Your task to perform on an android device: Is it going to rain today? Image 0: 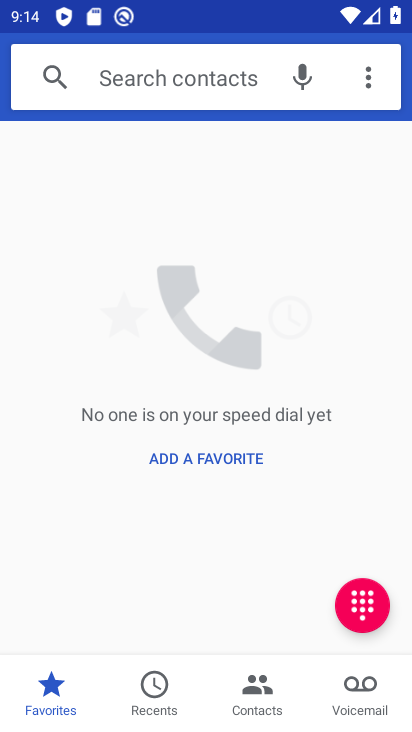
Step 0: press home button
Your task to perform on an android device: Is it going to rain today? Image 1: 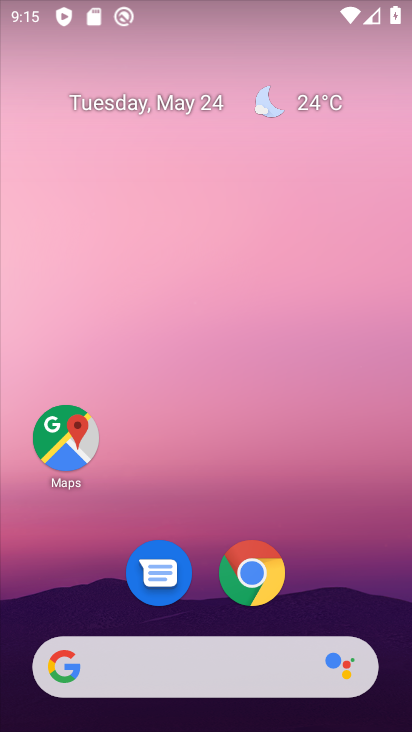
Step 1: click (319, 93)
Your task to perform on an android device: Is it going to rain today? Image 2: 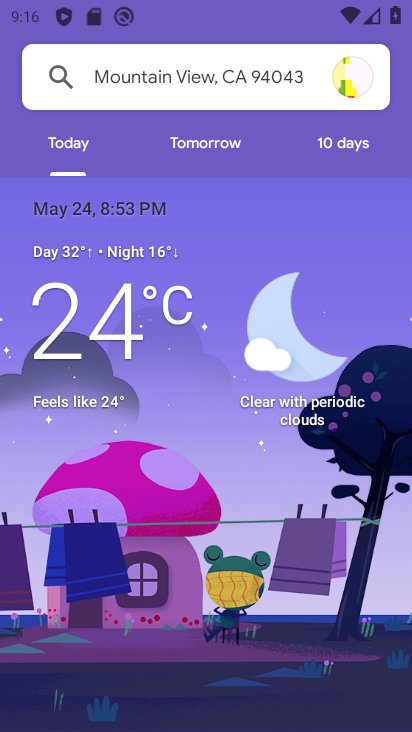
Step 2: task complete